Your task to perform on an android device: View the shopping cart on walmart.com. Search for razer blade on walmart.com, select the first entry, and add it to the cart. Image 0: 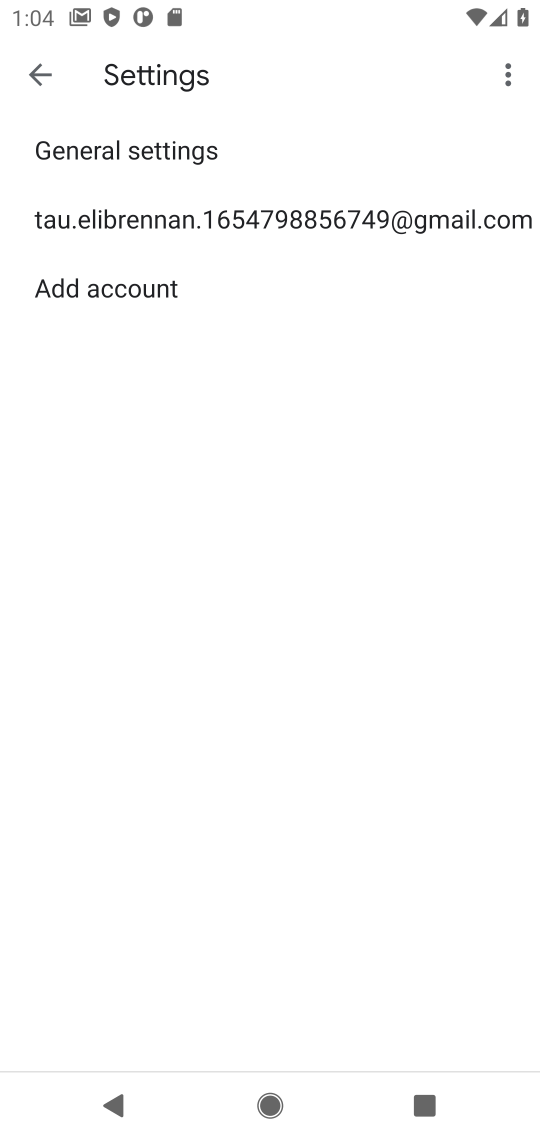
Step 0: press home button
Your task to perform on an android device: View the shopping cart on walmart.com. Search for razer blade on walmart.com, select the first entry, and add it to the cart. Image 1: 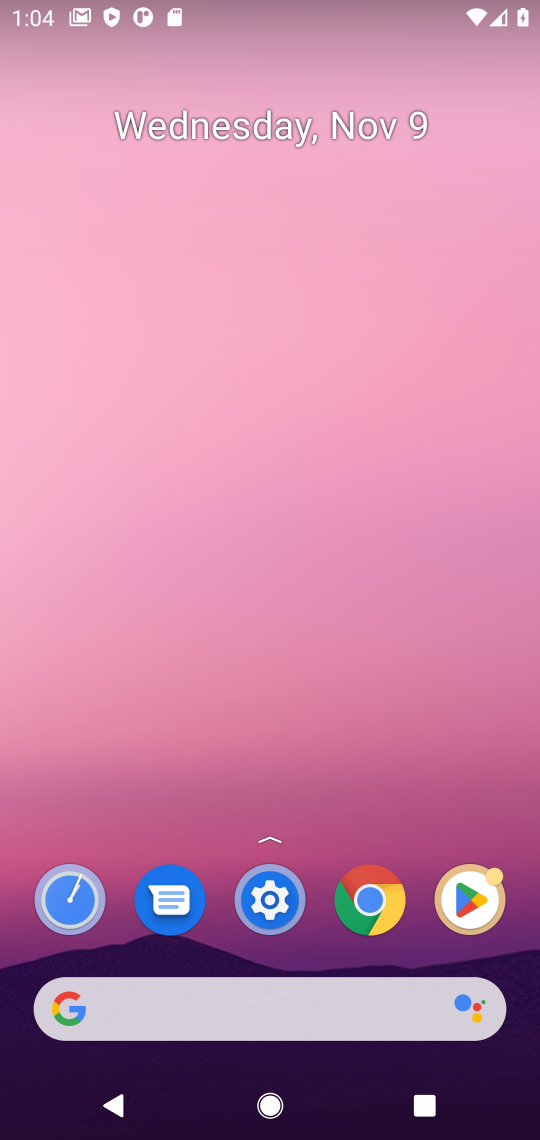
Step 1: click (374, 890)
Your task to perform on an android device: View the shopping cart on walmart.com. Search for razer blade on walmart.com, select the first entry, and add it to the cart. Image 2: 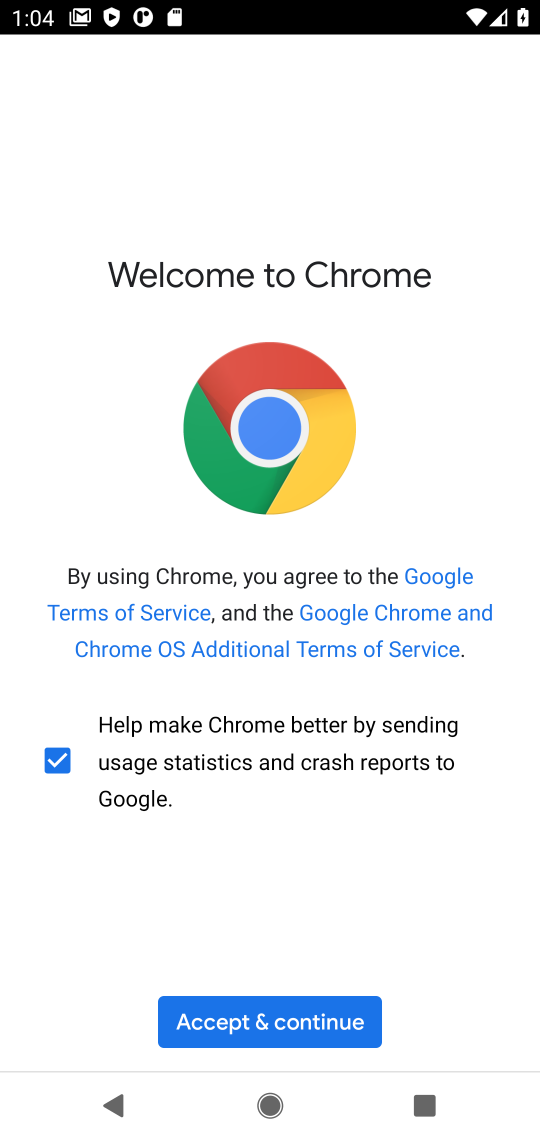
Step 2: click (343, 1020)
Your task to perform on an android device: View the shopping cart on walmart.com. Search for razer blade on walmart.com, select the first entry, and add it to the cart. Image 3: 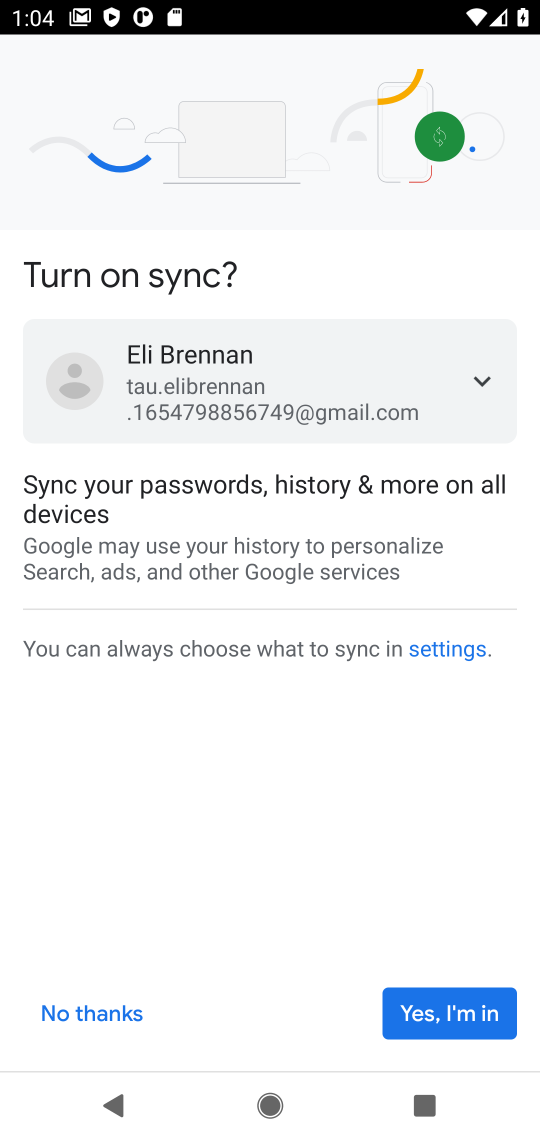
Step 3: click (433, 1023)
Your task to perform on an android device: View the shopping cart on walmart.com. Search for razer blade on walmart.com, select the first entry, and add it to the cart. Image 4: 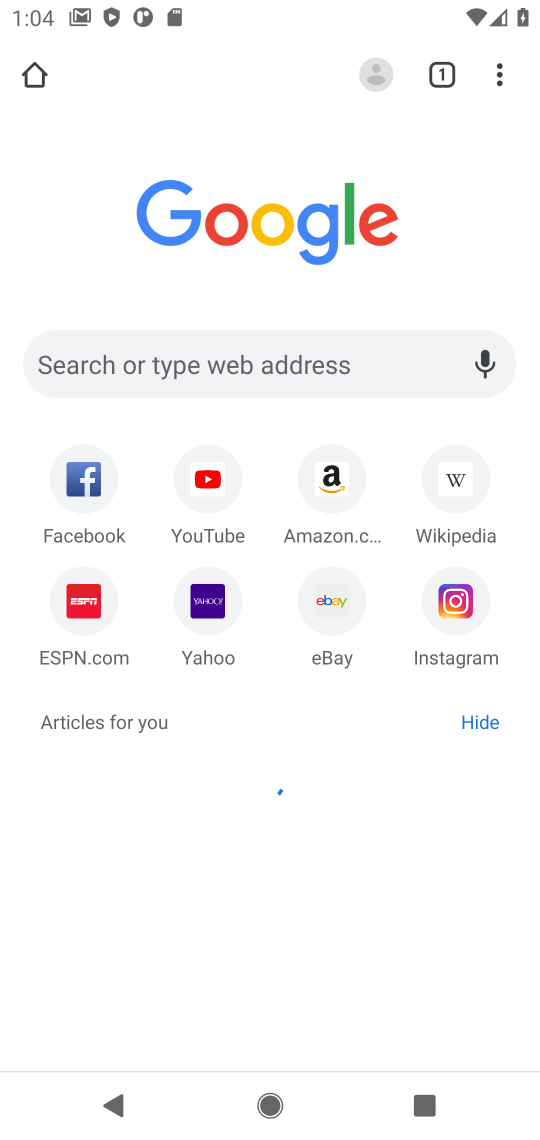
Step 4: click (246, 356)
Your task to perform on an android device: View the shopping cart on walmart.com. Search for razer blade on walmart.com, select the first entry, and add it to the cart. Image 5: 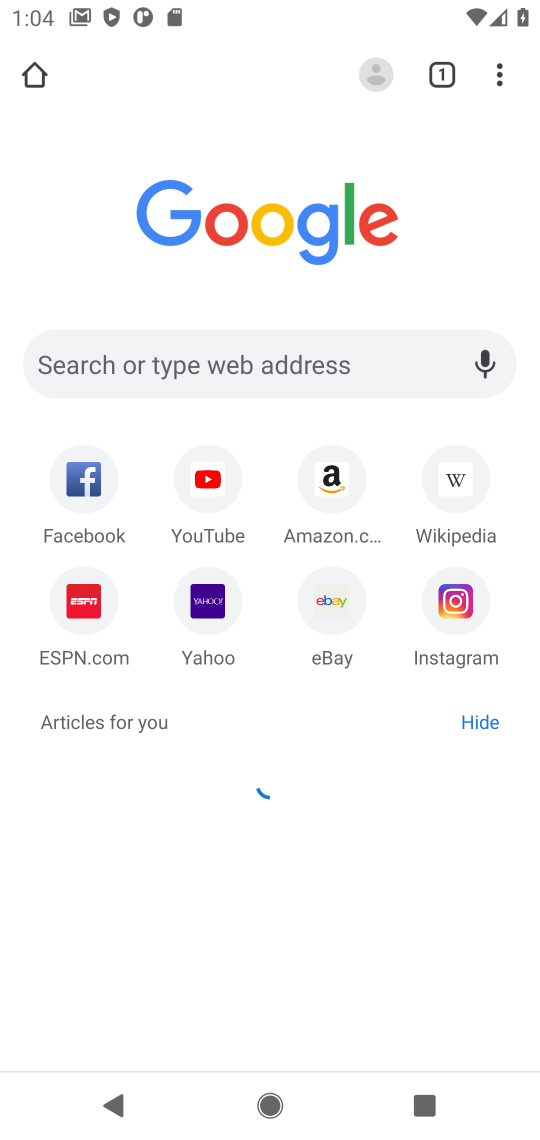
Step 5: click (246, 356)
Your task to perform on an android device: View the shopping cart on walmart.com. Search for razer blade on walmart.com, select the first entry, and add it to the cart. Image 6: 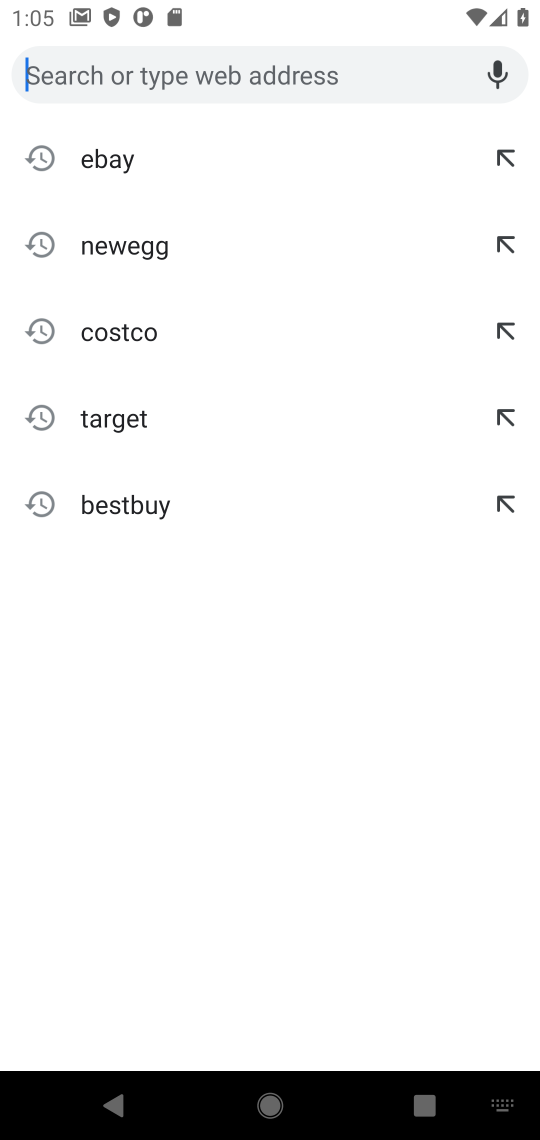
Step 6: type "walmart"
Your task to perform on an android device: View the shopping cart on walmart.com. Search for razer blade on walmart.com, select the first entry, and add it to the cart. Image 7: 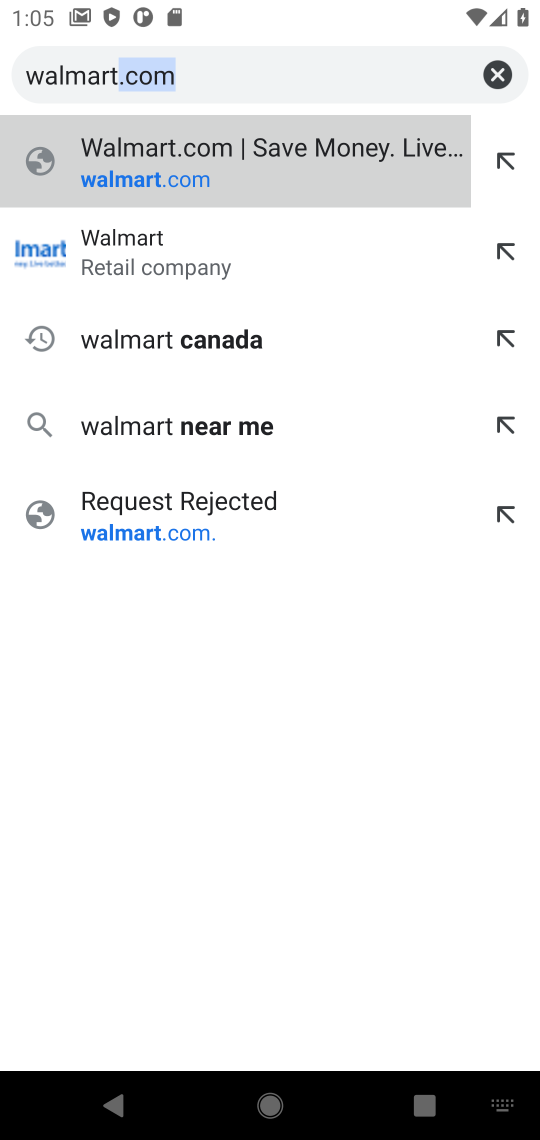
Step 7: click (143, 176)
Your task to perform on an android device: View the shopping cart on walmart.com. Search for razer blade on walmart.com, select the first entry, and add it to the cart. Image 8: 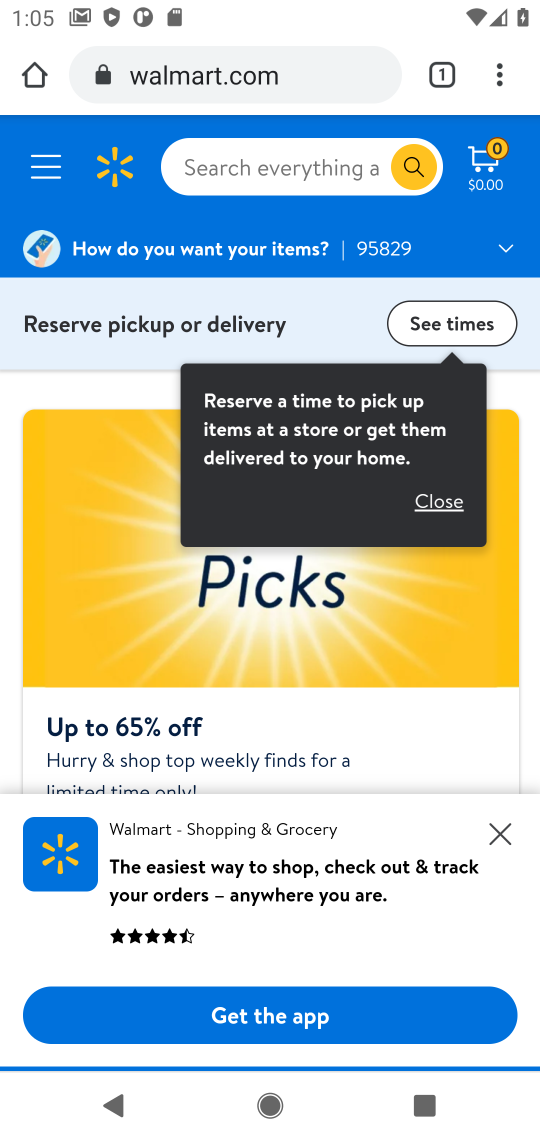
Step 8: click (493, 824)
Your task to perform on an android device: View the shopping cart on walmart.com. Search for razer blade on walmart.com, select the first entry, and add it to the cart. Image 9: 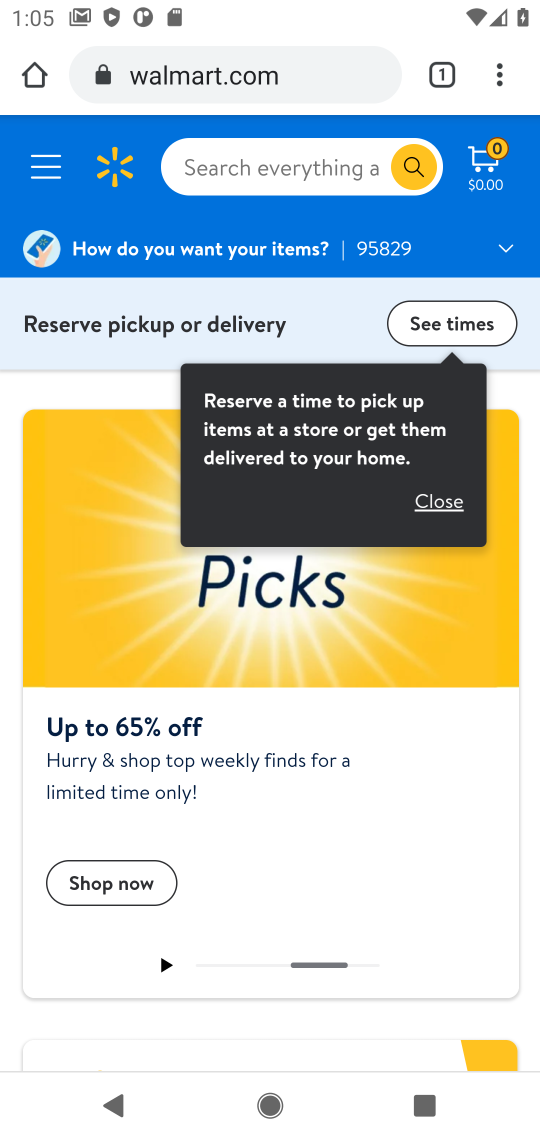
Step 9: click (286, 163)
Your task to perform on an android device: View the shopping cart on walmart.com. Search for razer blade on walmart.com, select the first entry, and add it to the cart. Image 10: 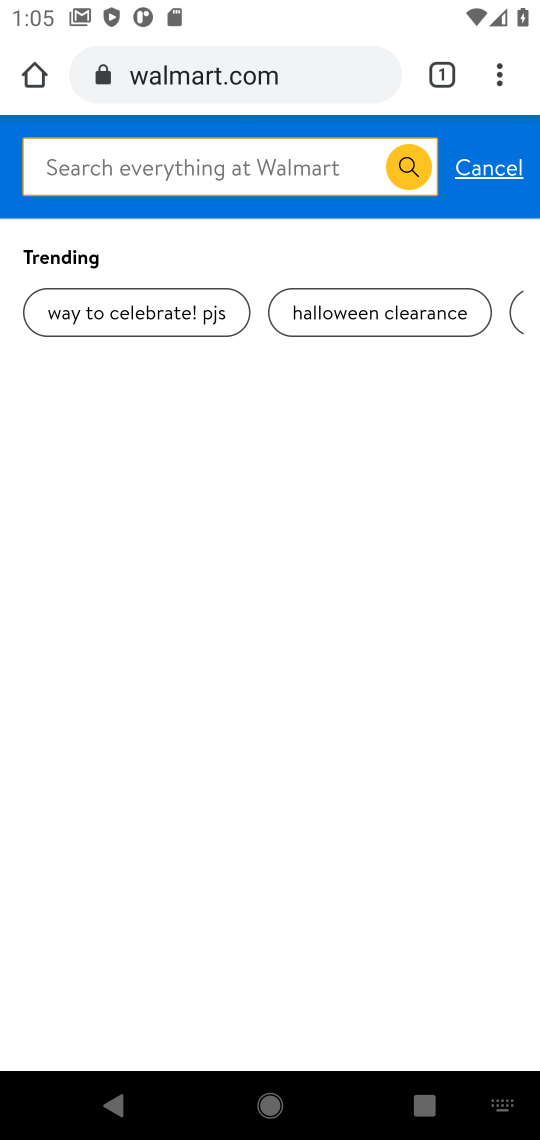
Step 10: type "razer blade "
Your task to perform on an android device: View the shopping cart on walmart.com. Search for razer blade on walmart.com, select the first entry, and add it to the cart. Image 11: 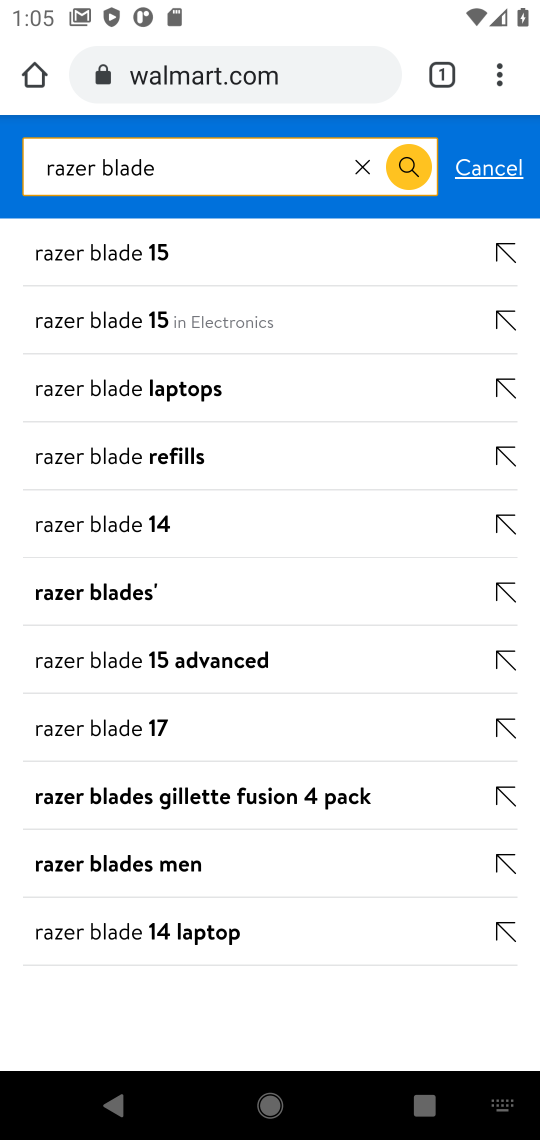
Step 11: click (149, 310)
Your task to perform on an android device: View the shopping cart on walmart.com. Search for razer blade on walmart.com, select the first entry, and add it to the cart. Image 12: 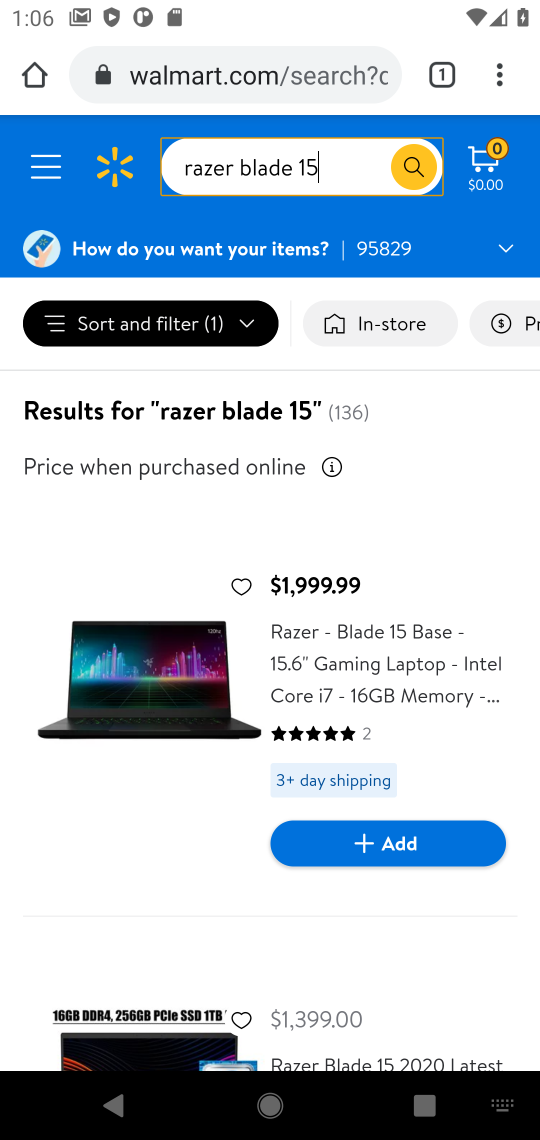
Step 12: click (346, 828)
Your task to perform on an android device: View the shopping cart on walmart.com. Search for razer blade on walmart.com, select the first entry, and add it to the cart. Image 13: 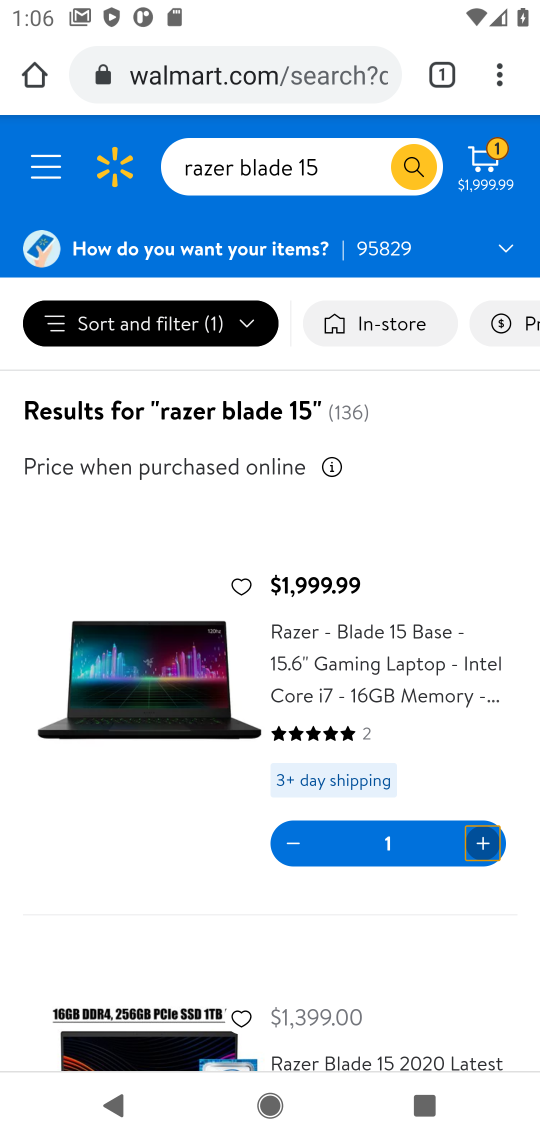
Step 13: task complete